Your task to perform on an android device: toggle notification dots Image 0: 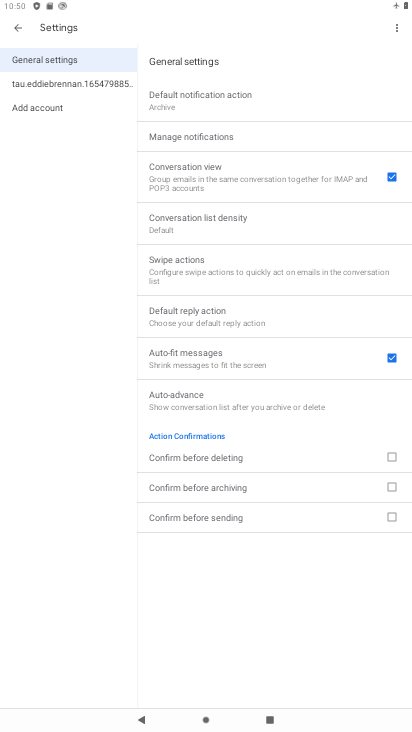
Step 0: press home button
Your task to perform on an android device: toggle notification dots Image 1: 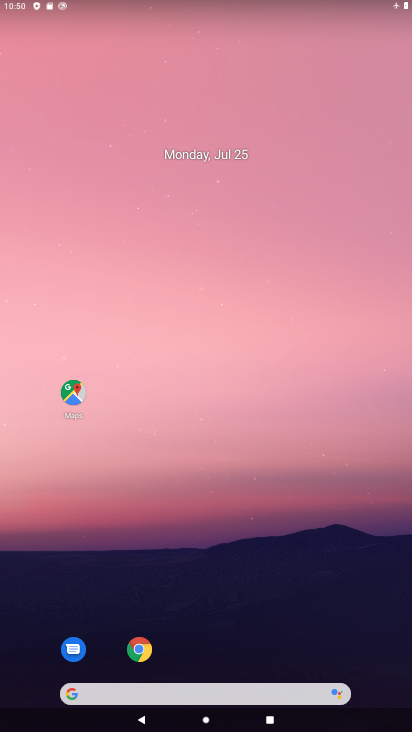
Step 1: drag from (243, 654) to (228, 8)
Your task to perform on an android device: toggle notification dots Image 2: 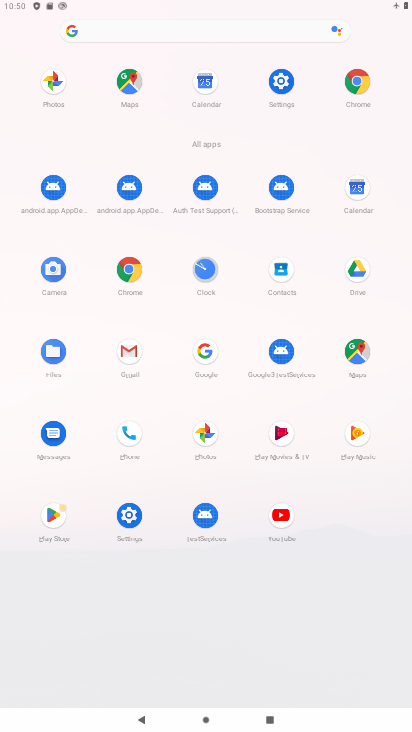
Step 2: click (131, 518)
Your task to perform on an android device: toggle notification dots Image 3: 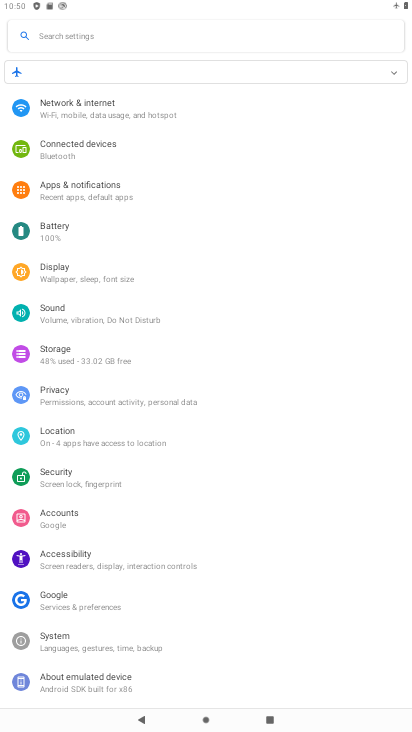
Step 3: click (107, 196)
Your task to perform on an android device: toggle notification dots Image 4: 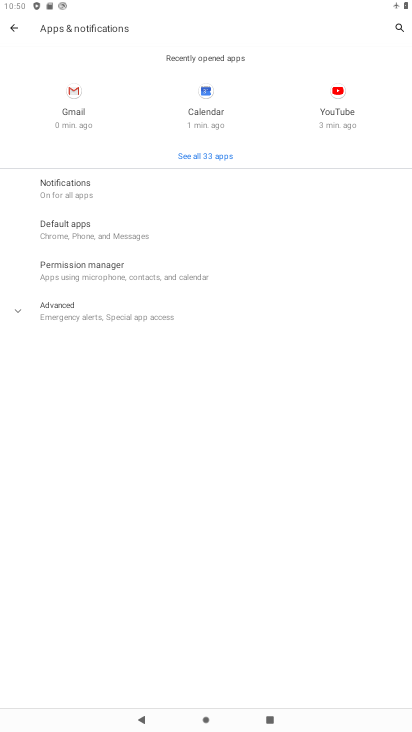
Step 4: click (69, 195)
Your task to perform on an android device: toggle notification dots Image 5: 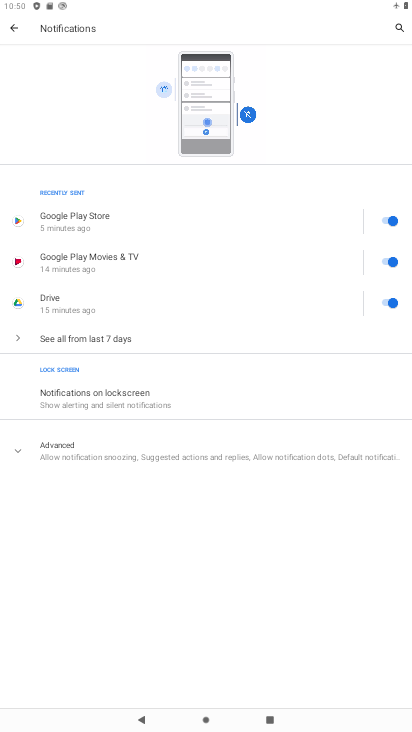
Step 5: click (17, 456)
Your task to perform on an android device: toggle notification dots Image 6: 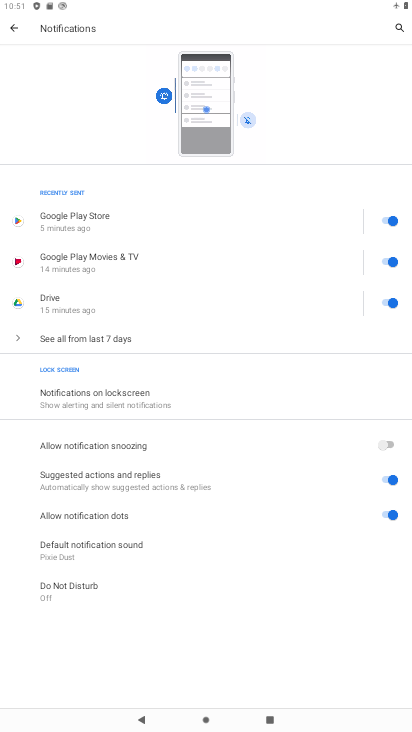
Step 6: click (398, 517)
Your task to perform on an android device: toggle notification dots Image 7: 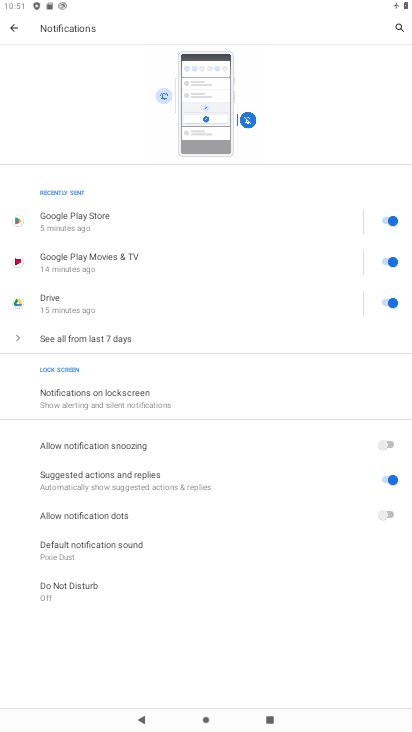
Step 7: task complete